Your task to perform on an android device: Open settings Image 0: 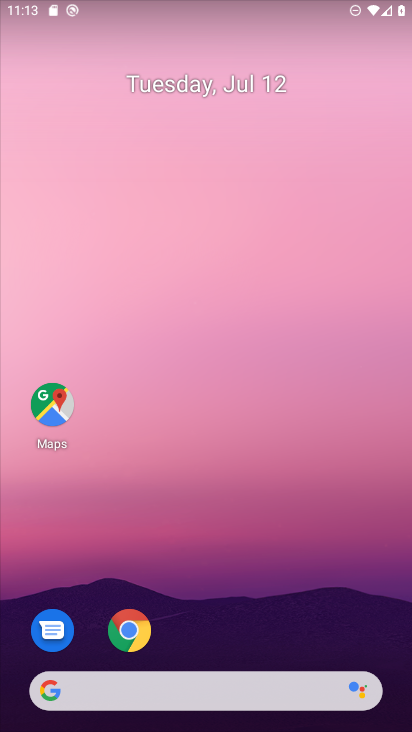
Step 0: drag from (359, 554) to (285, 106)
Your task to perform on an android device: Open settings Image 1: 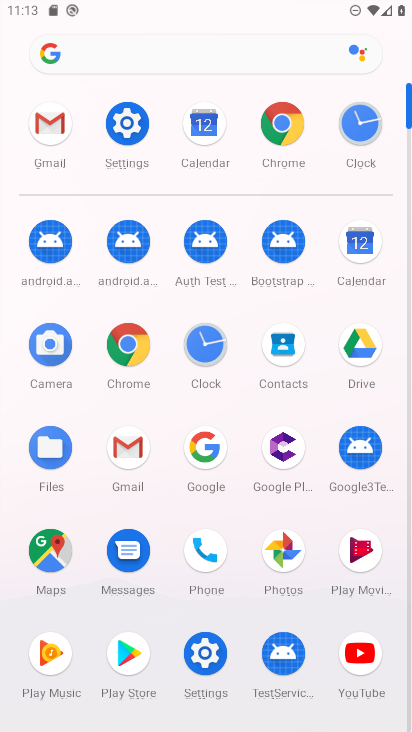
Step 1: click (125, 130)
Your task to perform on an android device: Open settings Image 2: 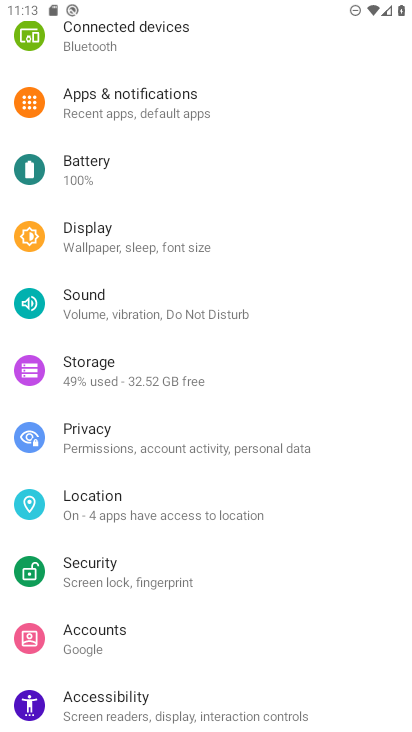
Step 2: task complete